Your task to perform on an android device: Open the Play Movies app and select the watchlist tab. Image 0: 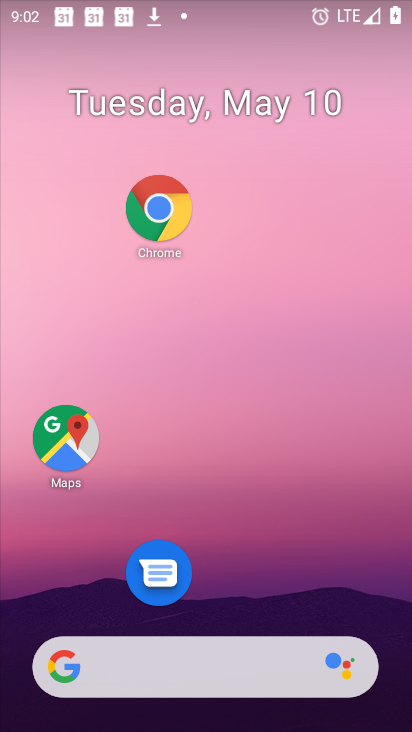
Step 0: drag from (286, 699) to (302, 108)
Your task to perform on an android device: Open the Play Movies app and select the watchlist tab. Image 1: 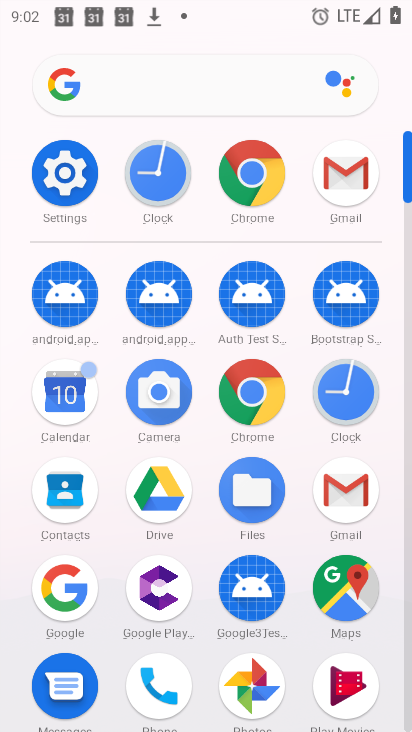
Step 1: click (340, 663)
Your task to perform on an android device: Open the Play Movies app and select the watchlist tab. Image 2: 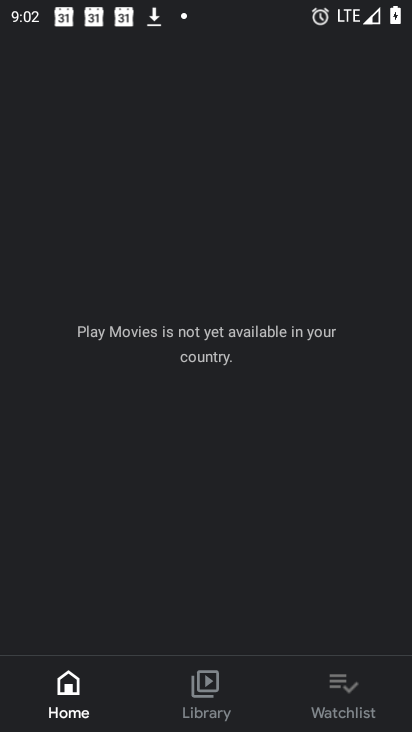
Step 2: click (356, 700)
Your task to perform on an android device: Open the Play Movies app and select the watchlist tab. Image 3: 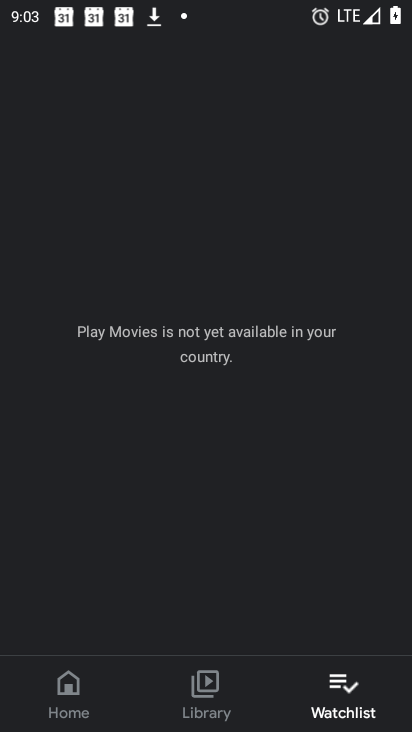
Step 3: task complete